Your task to perform on an android device: Go to battery settings Image 0: 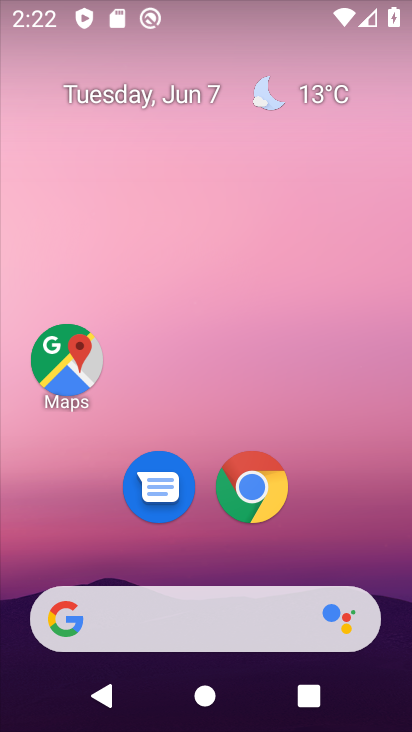
Step 0: click (353, 208)
Your task to perform on an android device: Go to battery settings Image 1: 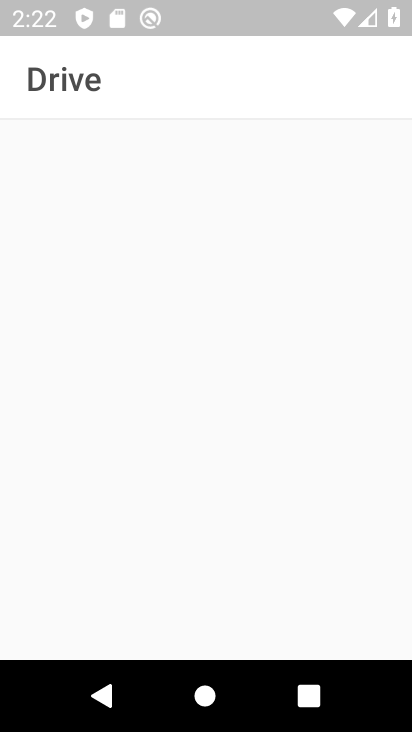
Step 1: drag from (207, 374) to (302, 13)
Your task to perform on an android device: Go to battery settings Image 2: 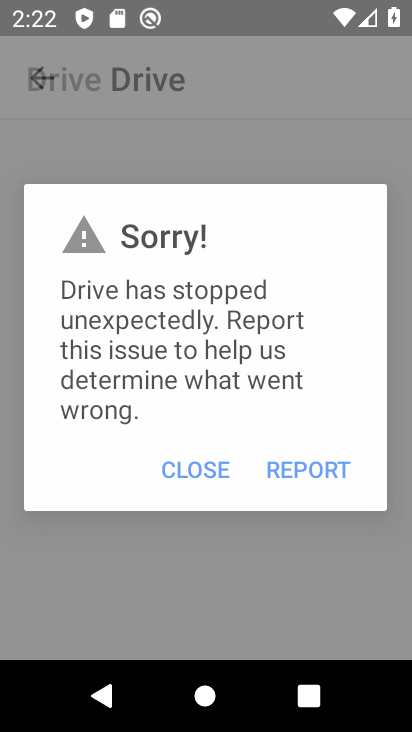
Step 2: press home button
Your task to perform on an android device: Go to battery settings Image 3: 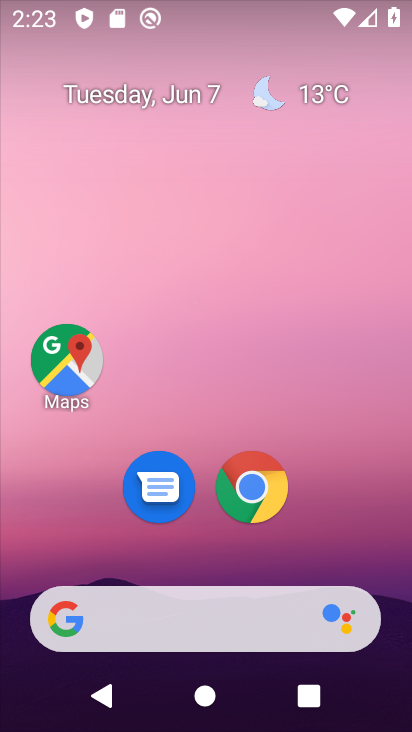
Step 3: drag from (330, 291) to (300, 167)
Your task to perform on an android device: Go to battery settings Image 4: 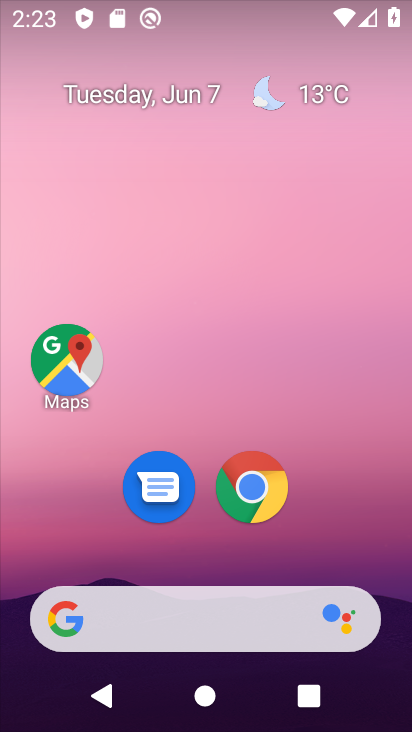
Step 4: drag from (234, 392) to (239, 78)
Your task to perform on an android device: Go to battery settings Image 5: 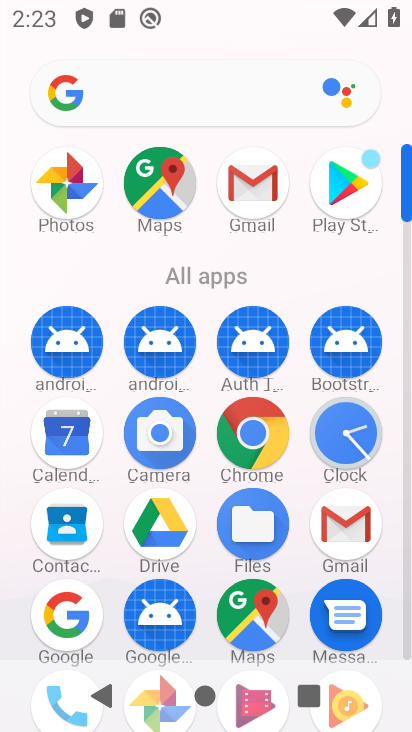
Step 5: drag from (102, 584) to (110, 258)
Your task to perform on an android device: Go to battery settings Image 6: 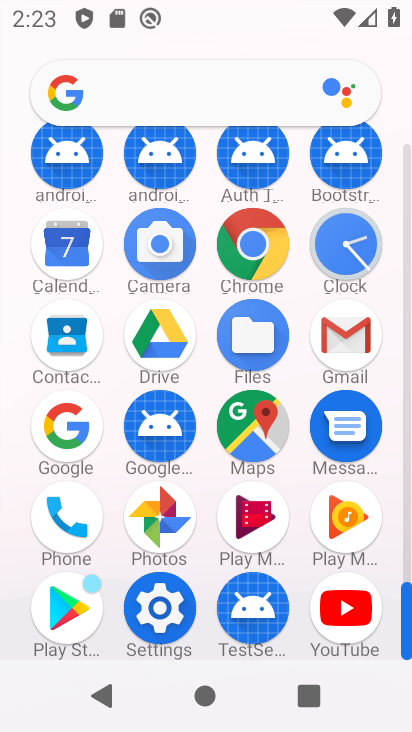
Step 6: click (171, 612)
Your task to perform on an android device: Go to battery settings Image 7: 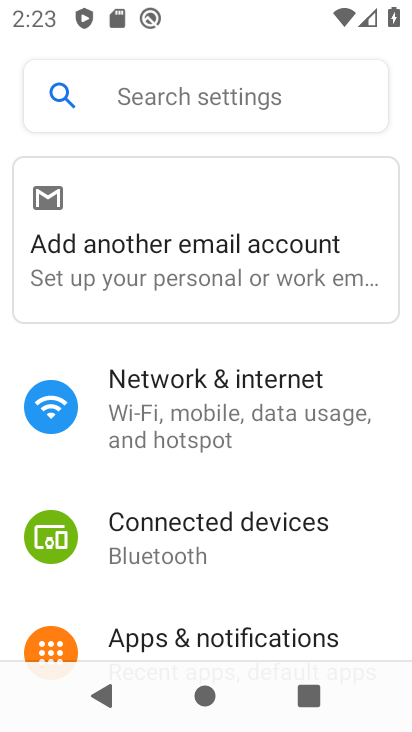
Step 7: drag from (101, 615) to (169, 181)
Your task to perform on an android device: Go to battery settings Image 8: 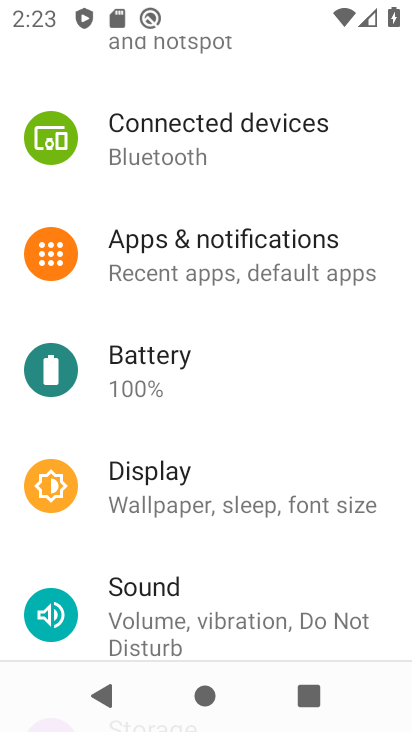
Step 8: click (168, 367)
Your task to perform on an android device: Go to battery settings Image 9: 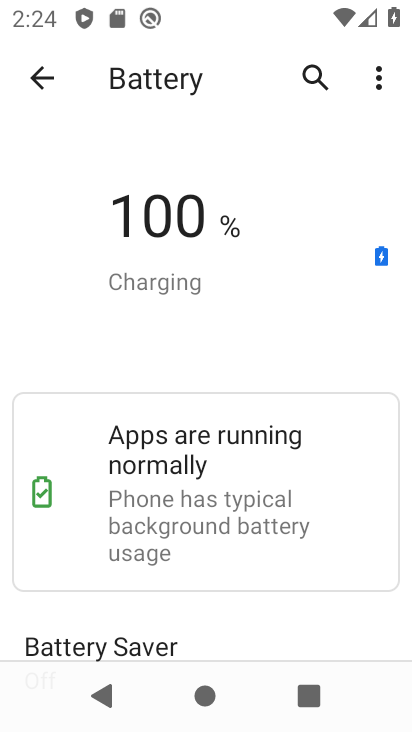
Step 9: task complete